Your task to perform on an android device: Open settings on Google Maps Image 0: 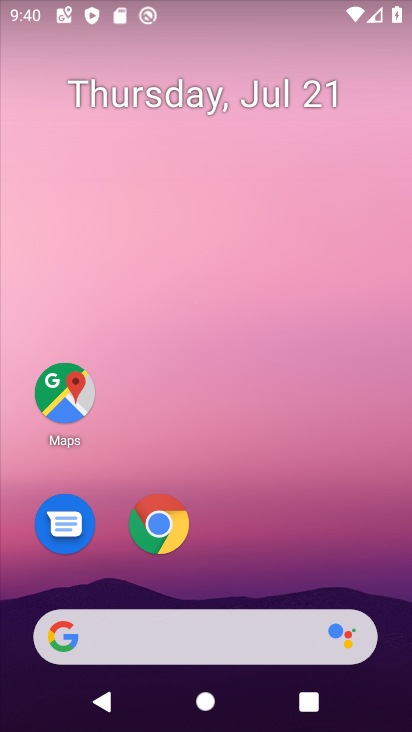
Step 0: press home button
Your task to perform on an android device: Open settings on Google Maps Image 1: 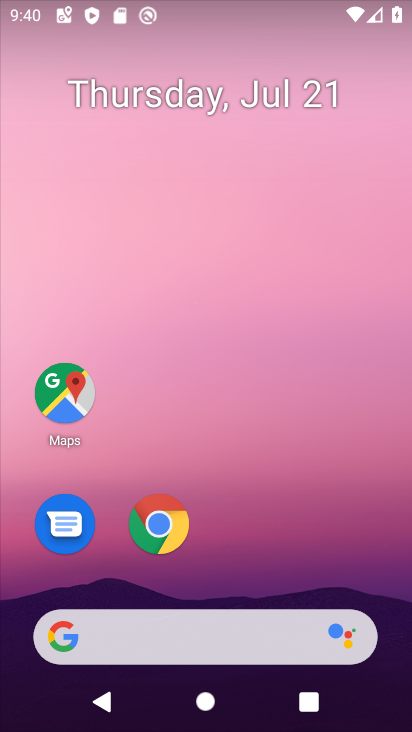
Step 1: click (59, 396)
Your task to perform on an android device: Open settings on Google Maps Image 2: 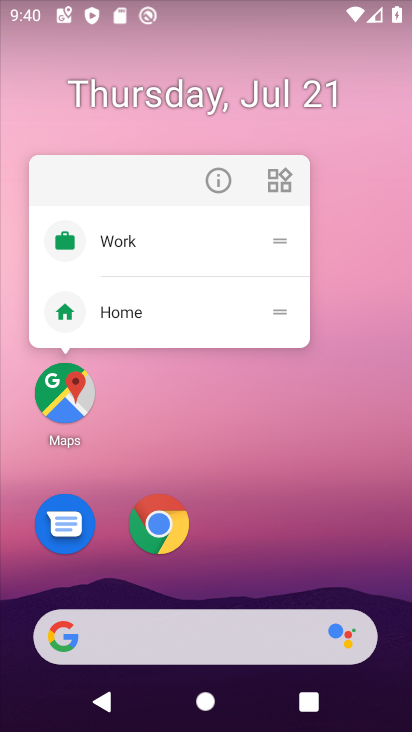
Step 2: click (65, 399)
Your task to perform on an android device: Open settings on Google Maps Image 3: 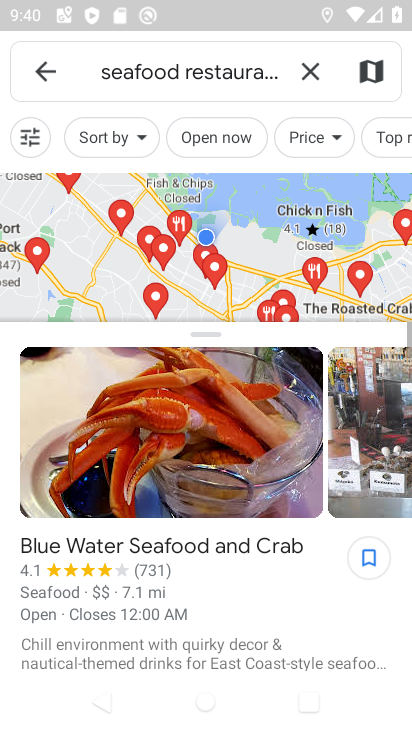
Step 3: click (48, 69)
Your task to perform on an android device: Open settings on Google Maps Image 4: 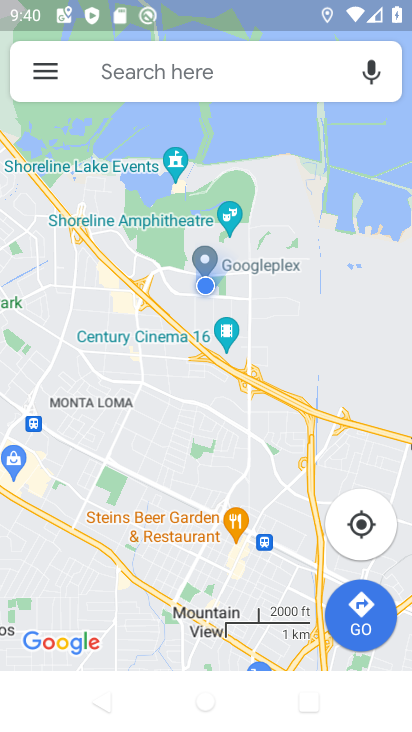
Step 4: click (48, 68)
Your task to perform on an android device: Open settings on Google Maps Image 5: 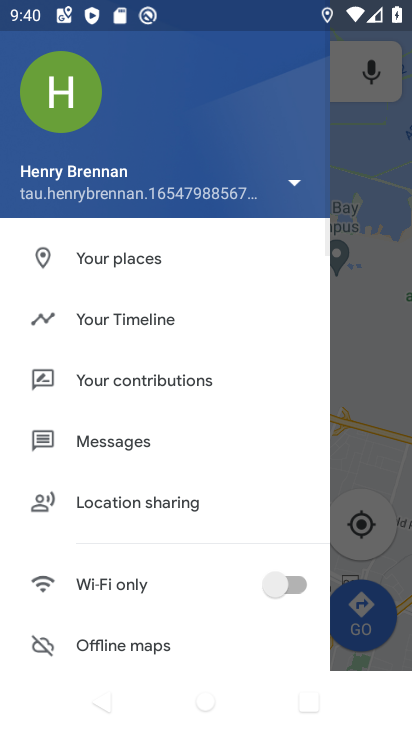
Step 5: drag from (210, 656) to (269, 173)
Your task to perform on an android device: Open settings on Google Maps Image 6: 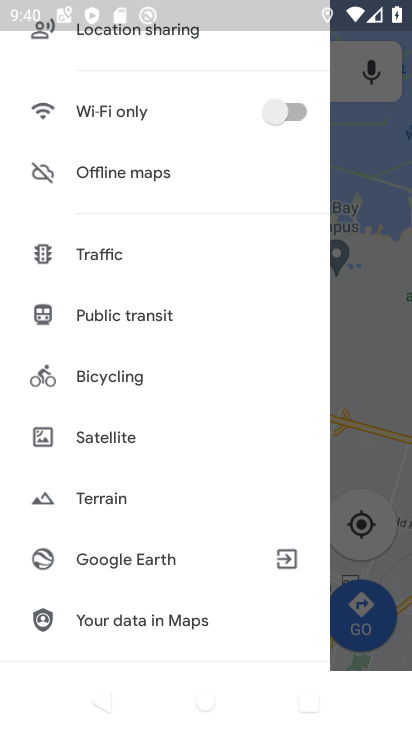
Step 6: drag from (189, 565) to (242, 136)
Your task to perform on an android device: Open settings on Google Maps Image 7: 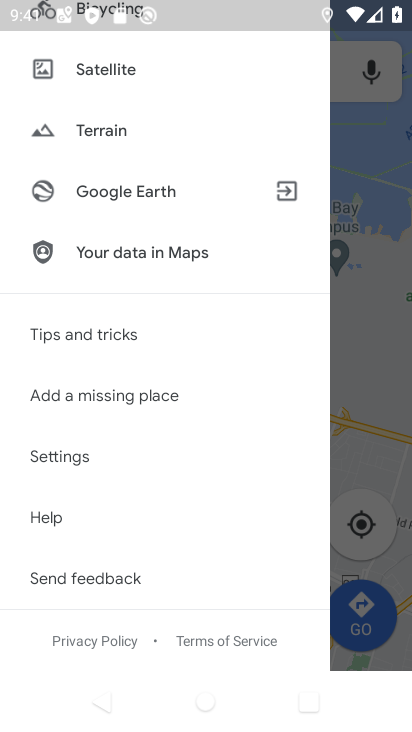
Step 7: click (72, 459)
Your task to perform on an android device: Open settings on Google Maps Image 8: 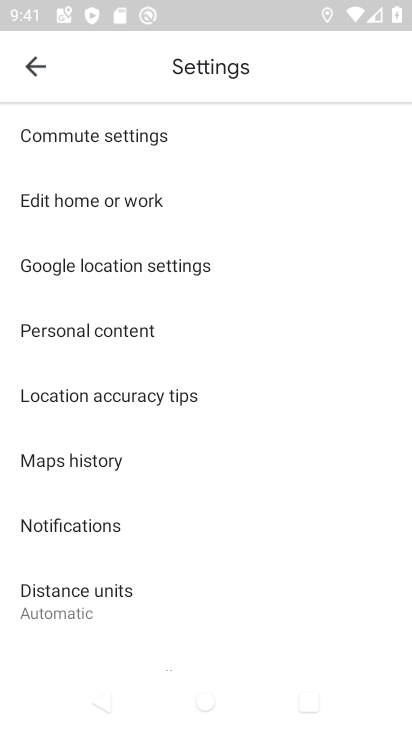
Step 8: task complete